Your task to perform on an android device: Go to Wikipedia Image 0: 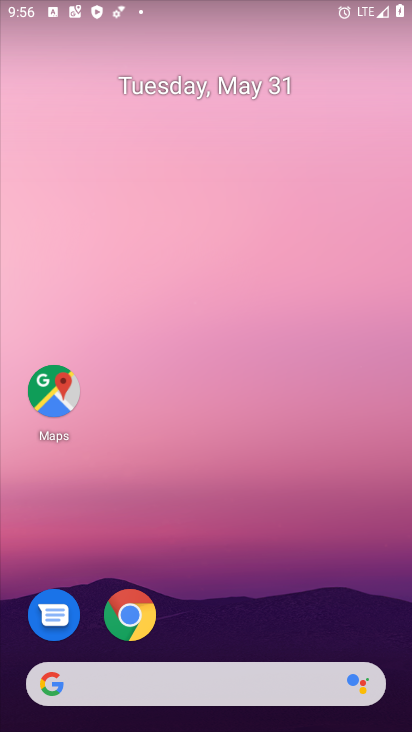
Step 0: click (129, 618)
Your task to perform on an android device: Go to Wikipedia Image 1: 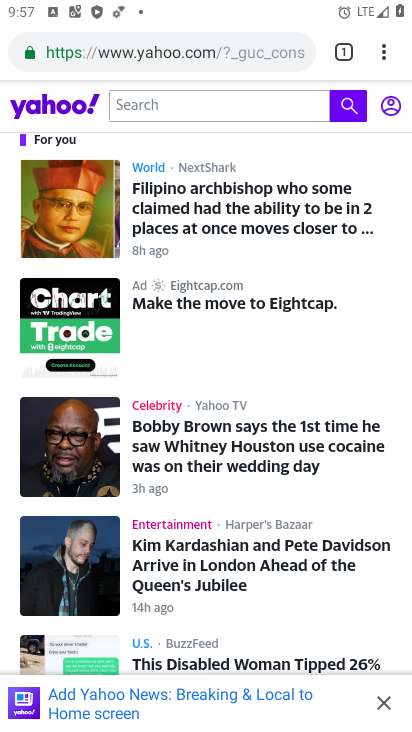
Step 1: click (298, 51)
Your task to perform on an android device: Go to Wikipedia Image 2: 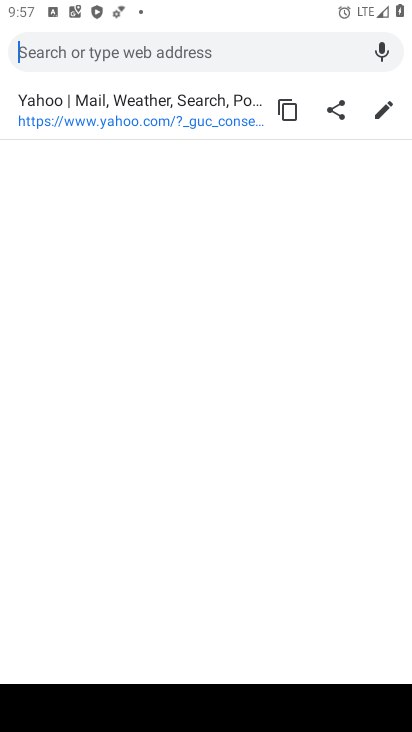
Step 2: type "wikipedia"
Your task to perform on an android device: Go to Wikipedia Image 3: 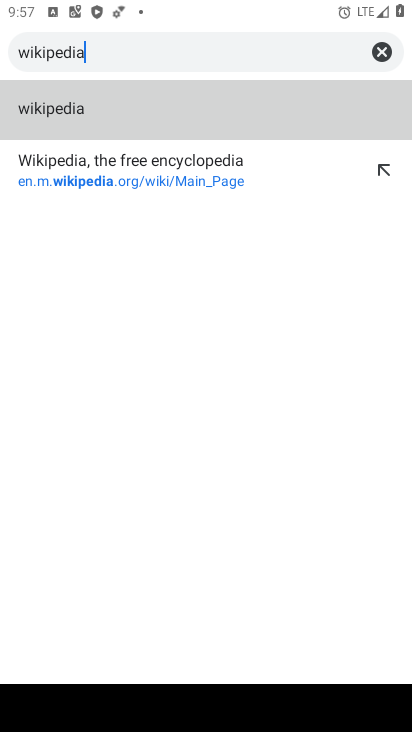
Step 3: click (78, 104)
Your task to perform on an android device: Go to Wikipedia Image 4: 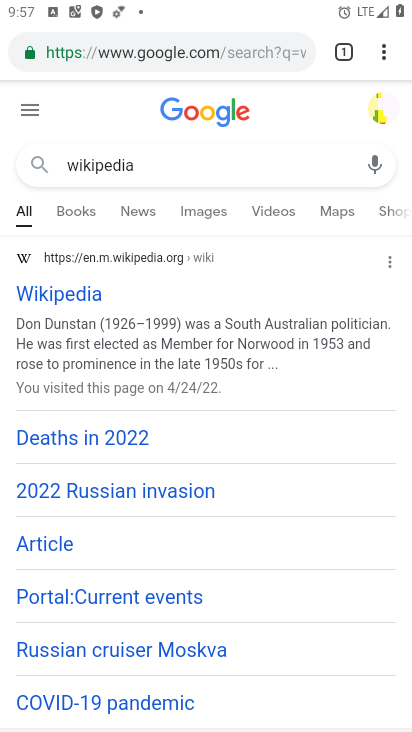
Step 4: click (24, 288)
Your task to perform on an android device: Go to Wikipedia Image 5: 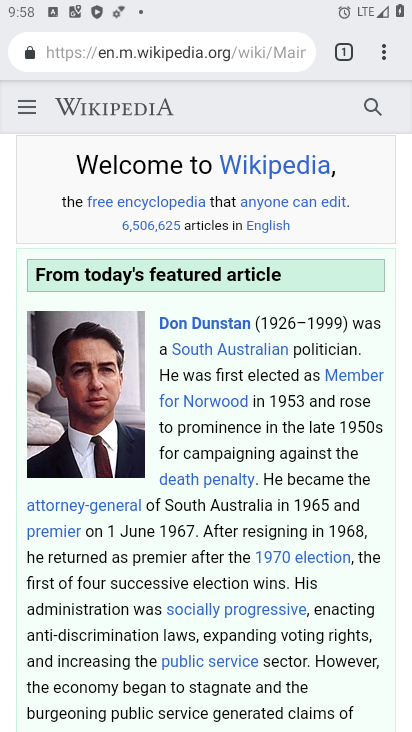
Step 5: task complete